Your task to perform on an android device: Open the calendar app, open the side menu, and click the "Day" option Image 0: 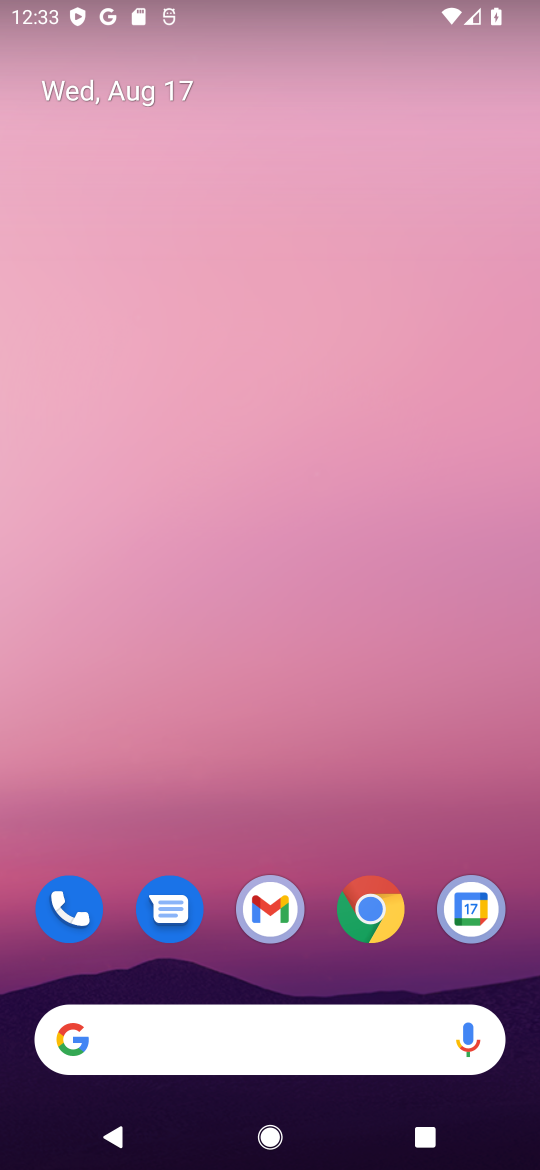
Step 0: drag from (273, 829) to (237, 209)
Your task to perform on an android device: Open the calendar app, open the side menu, and click the "Day" option Image 1: 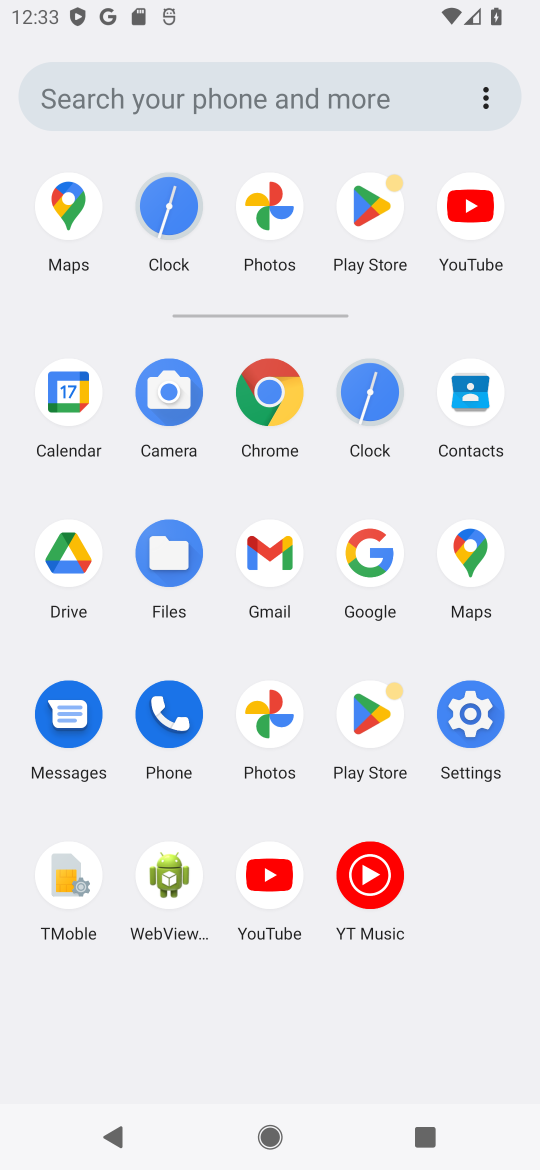
Step 1: click (68, 391)
Your task to perform on an android device: Open the calendar app, open the side menu, and click the "Day" option Image 2: 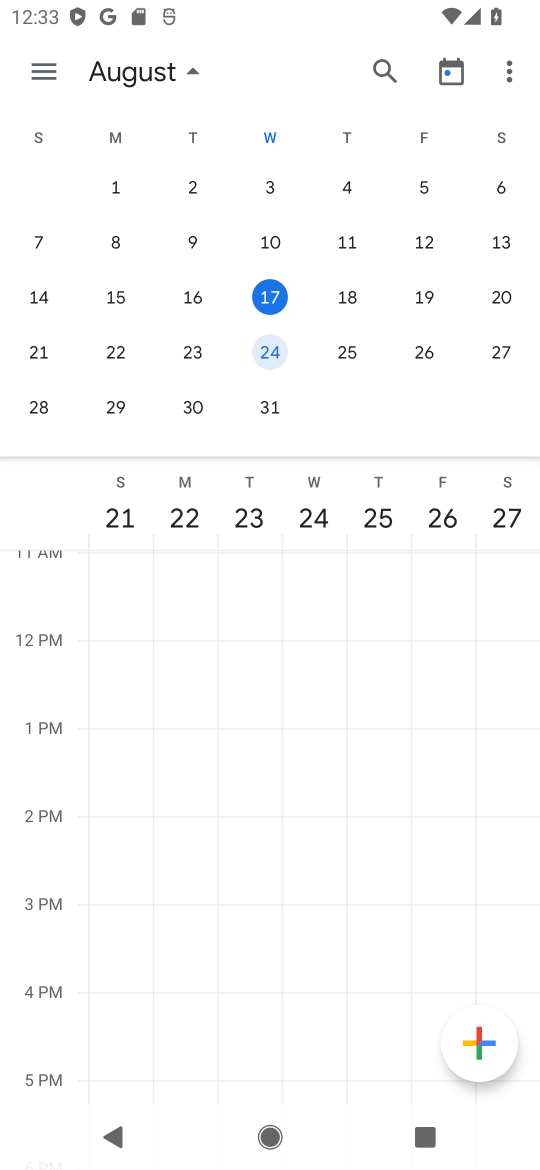
Step 2: click (41, 60)
Your task to perform on an android device: Open the calendar app, open the side menu, and click the "Day" option Image 3: 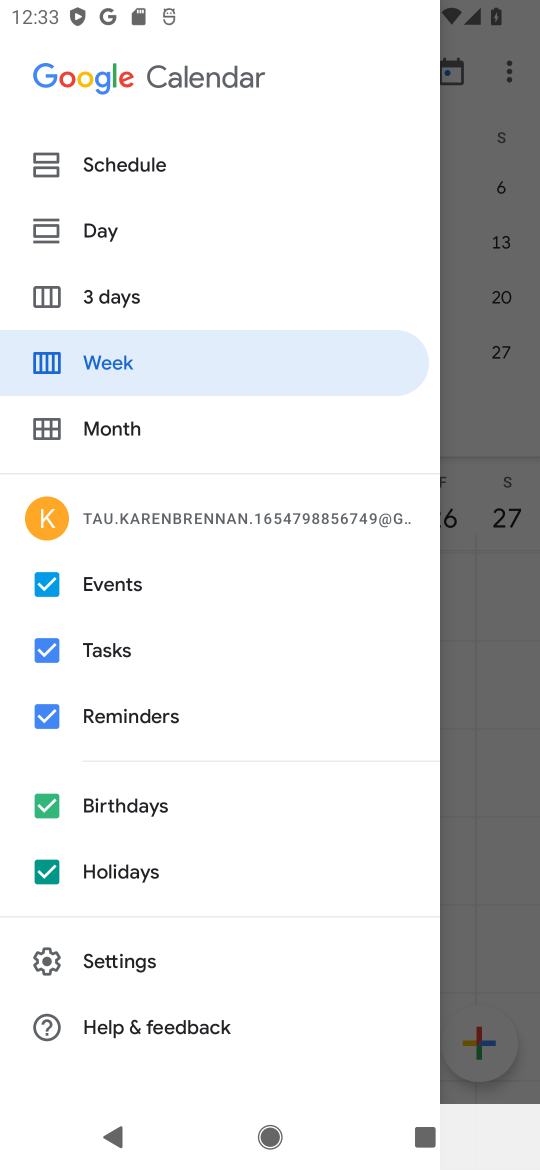
Step 3: click (102, 221)
Your task to perform on an android device: Open the calendar app, open the side menu, and click the "Day" option Image 4: 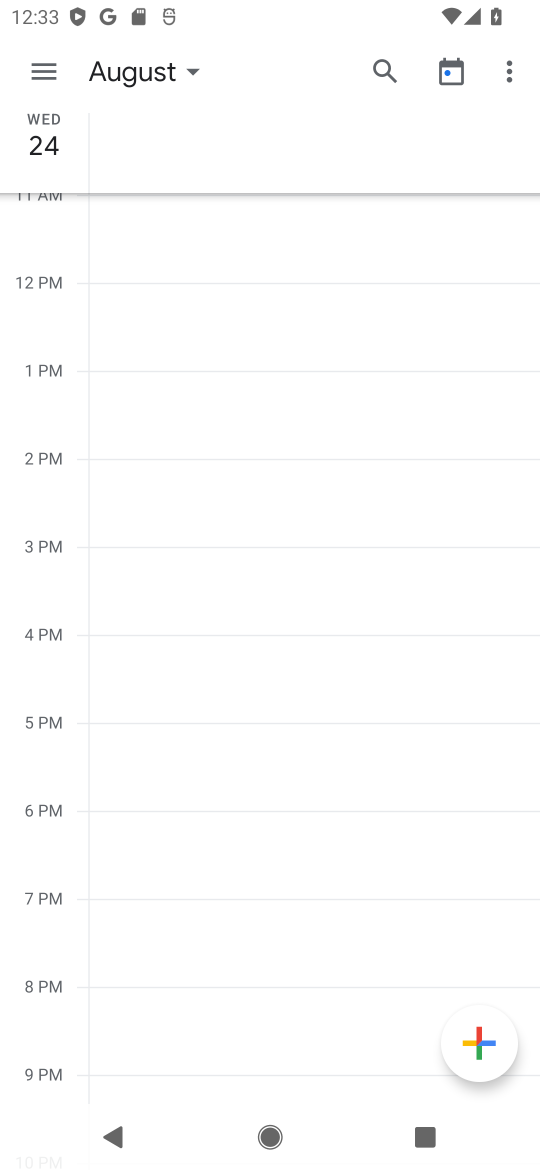
Step 4: task complete